Your task to perform on an android device: turn off smart reply in the gmail app Image 0: 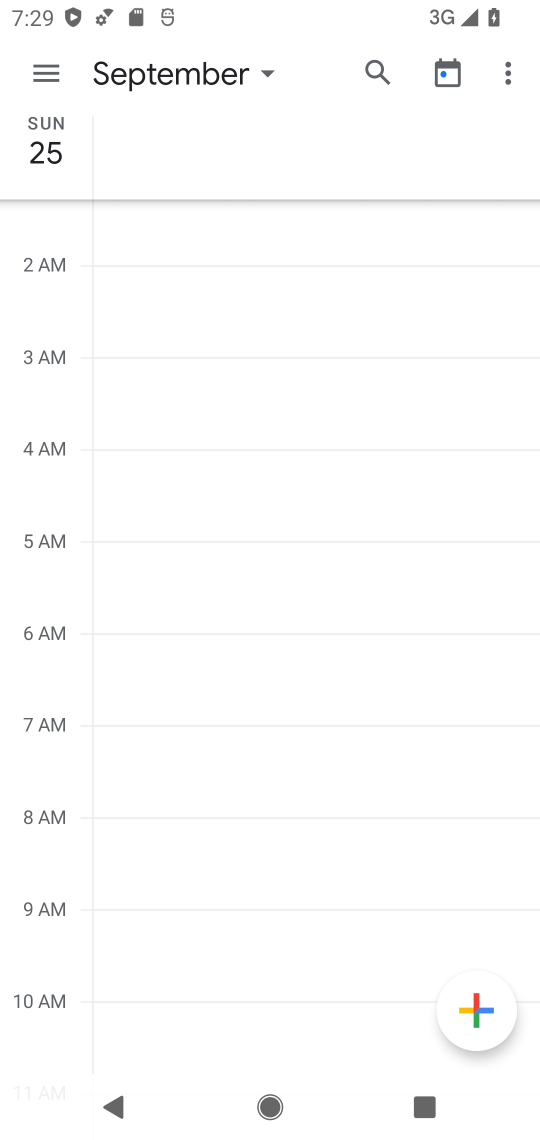
Step 0: press home button
Your task to perform on an android device: turn off smart reply in the gmail app Image 1: 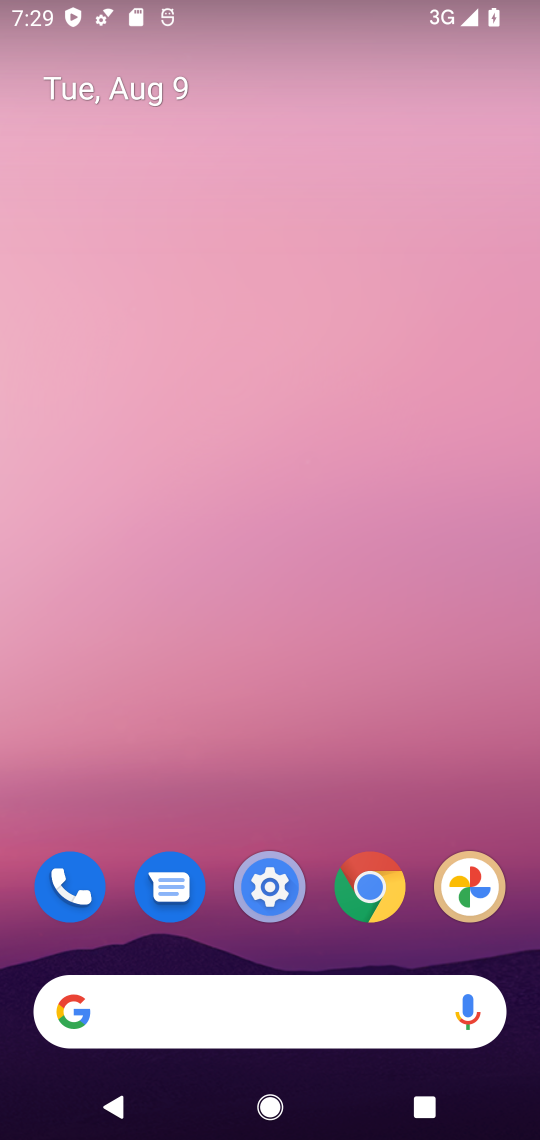
Step 1: drag from (300, 798) to (379, 117)
Your task to perform on an android device: turn off smart reply in the gmail app Image 2: 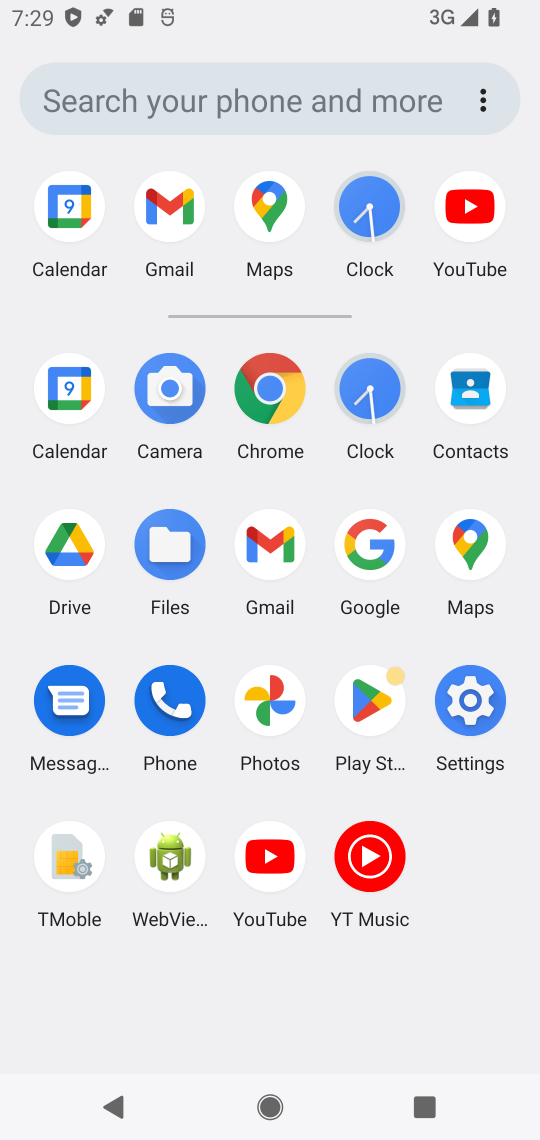
Step 2: click (168, 202)
Your task to perform on an android device: turn off smart reply in the gmail app Image 3: 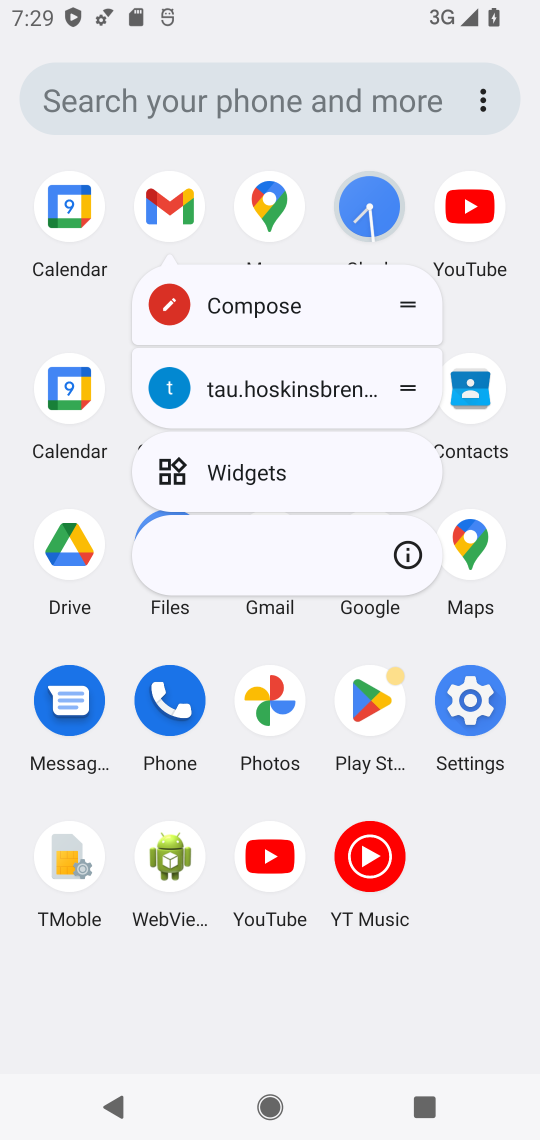
Step 3: click (168, 204)
Your task to perform on an android device: turn off smart reply in the gmail app Image 4: 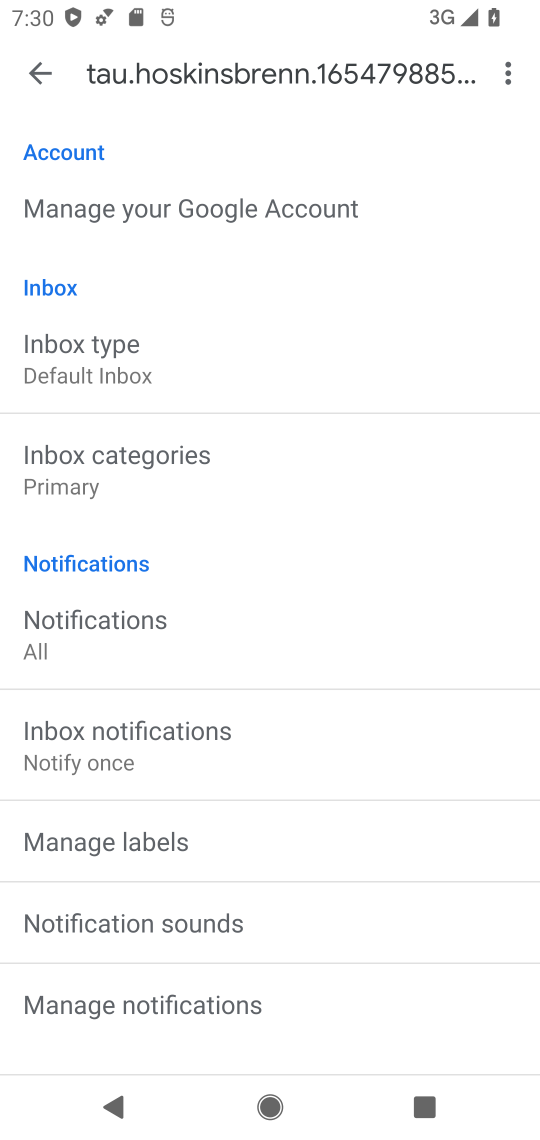
Step 4: drag from (338, 825) to (373, 0)
Your task to perform on an android device: turn off smart reply in the gmail app Image 5: 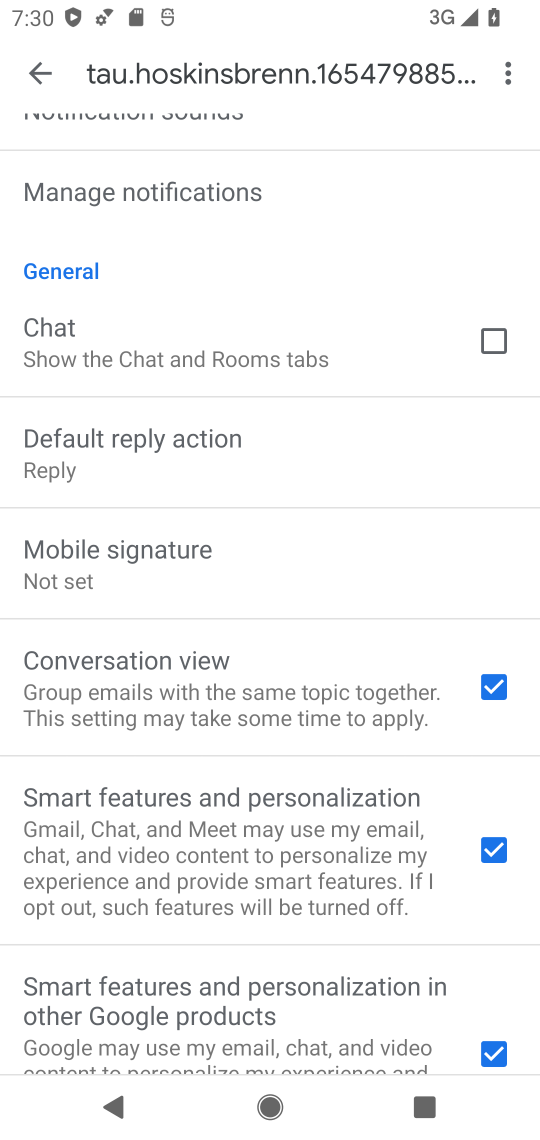
Step 5: drag from (298, 932) to (313, 37)
Your task to perform on an android device: turn off smart reply in the gmail app Image 6: 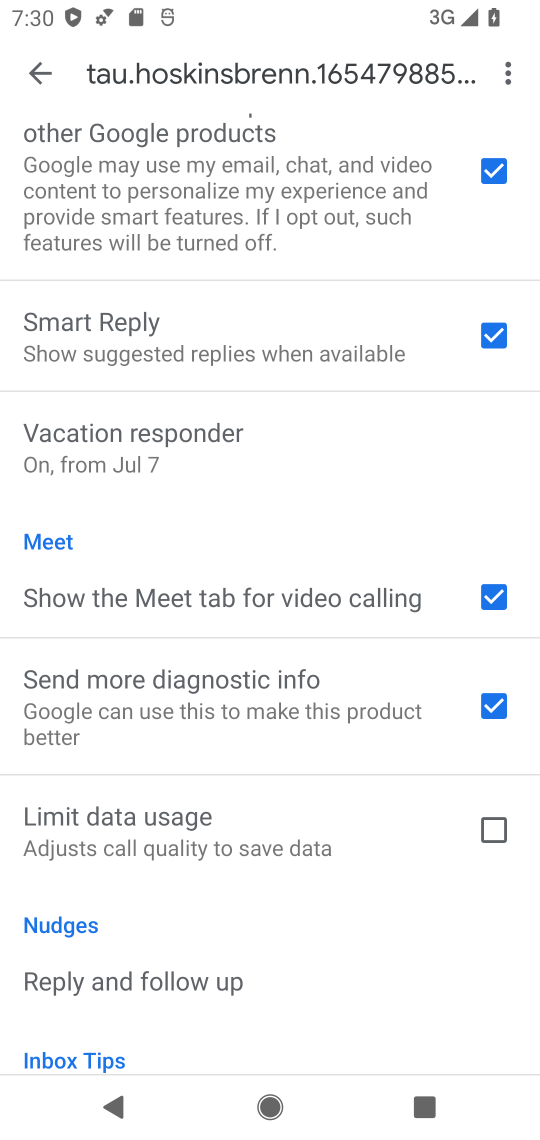
Step 6: click (500, 331)
Your task to perform on an android device: turn off smart reply in the gmail app Image 7: 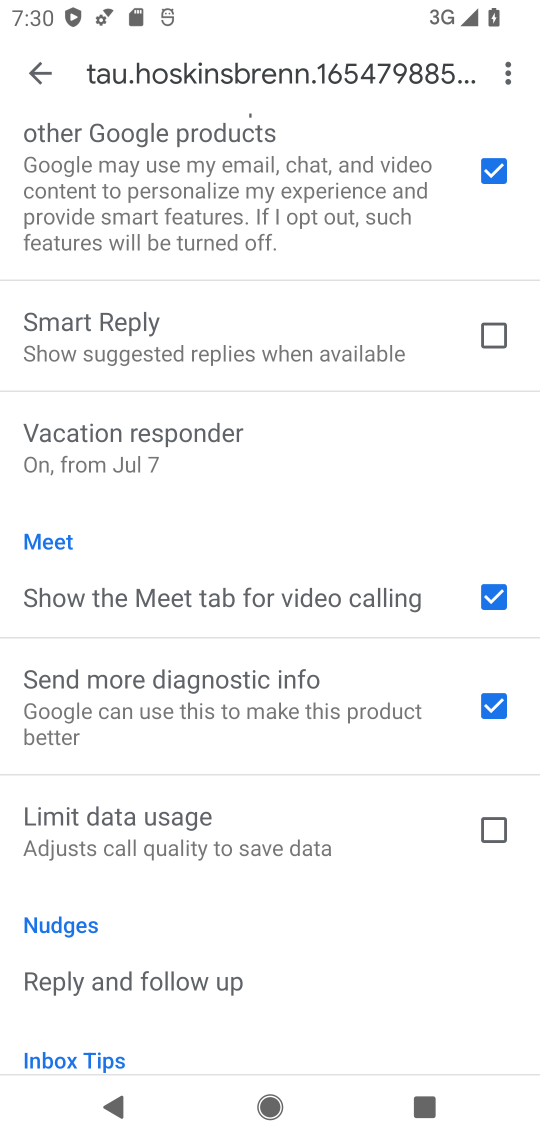
Step 7: task complete